Your task to perform on an android device: change the clock style Image 0: 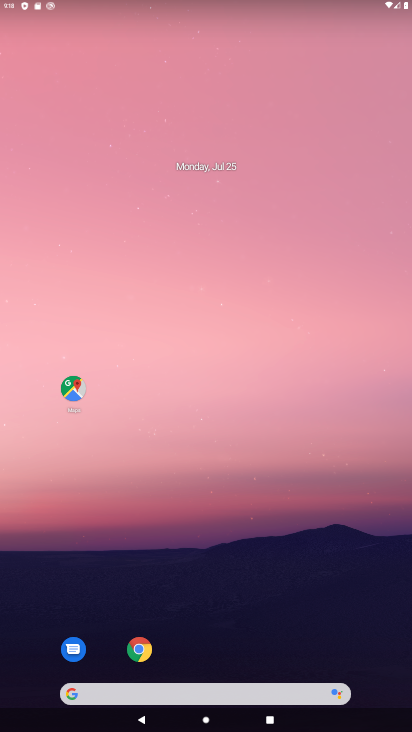
Step 0: drag from (259, 533) to (141, 58)
Your task to perform on an android device: change the clock style Image 1: 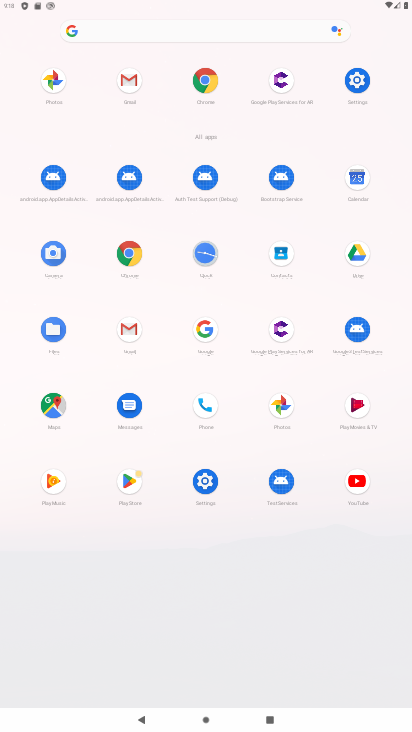
Step 1: click (200, 92)
Your task to perform on an android device: change the clock style Image 2: 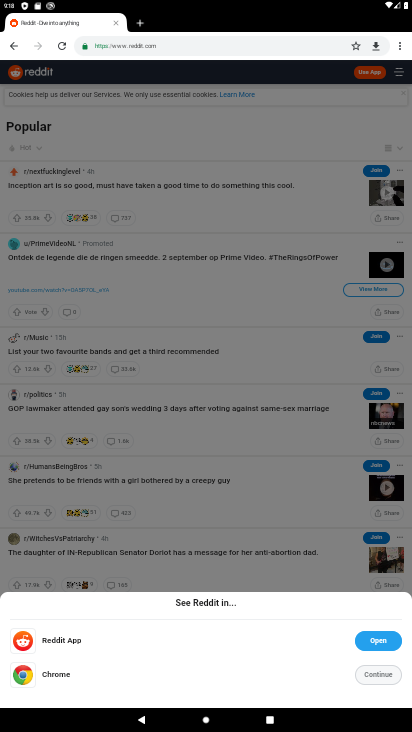
Step 2: press home button
Your task to perform on an android device: change the clock style Image 3: 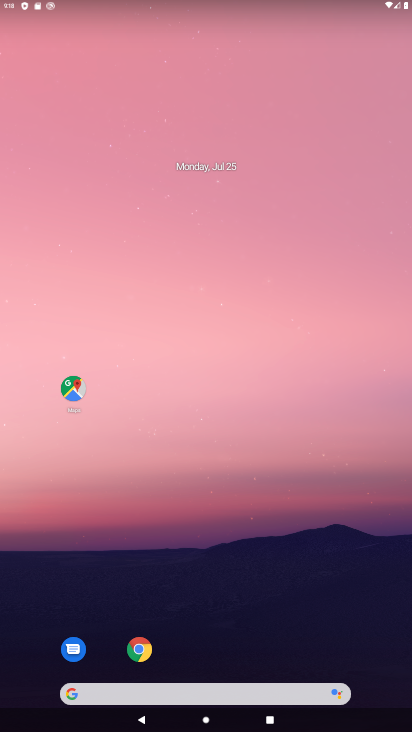
Step 3: drag from (226, 482) to (171, 42)
Your task to perform on an android device: change the clock style Image 4: 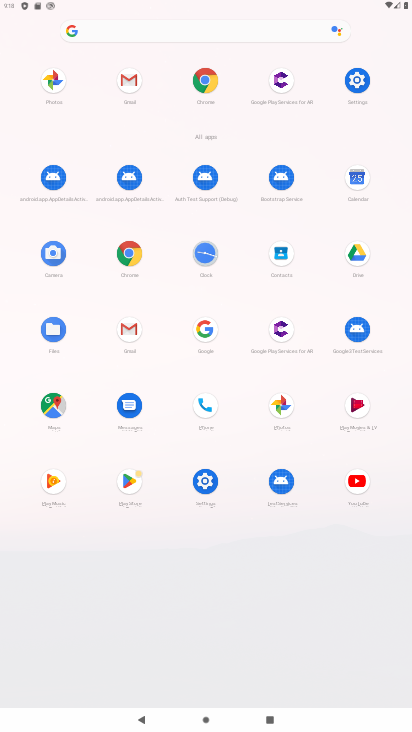
Step 4: click (203, 263)
Your task to perform on an android device: change the clock style Image 5: 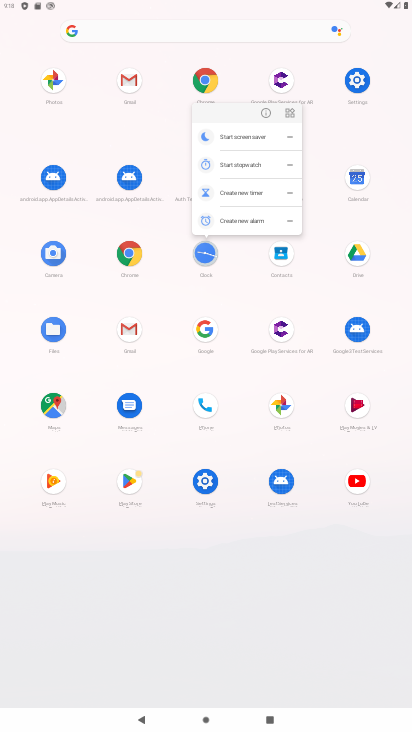
Step 5: click (203, 263)
Your task to perform on an android device: change the clock style Image 6: 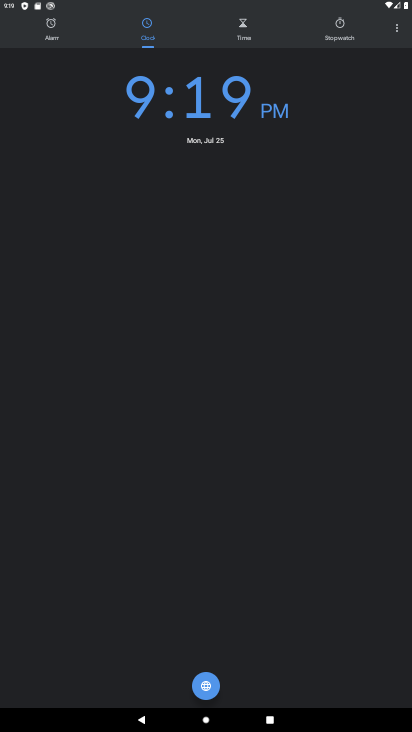
Step 6: click (399, 21)
Your task to perform on an android device: change the clock style Image 7: 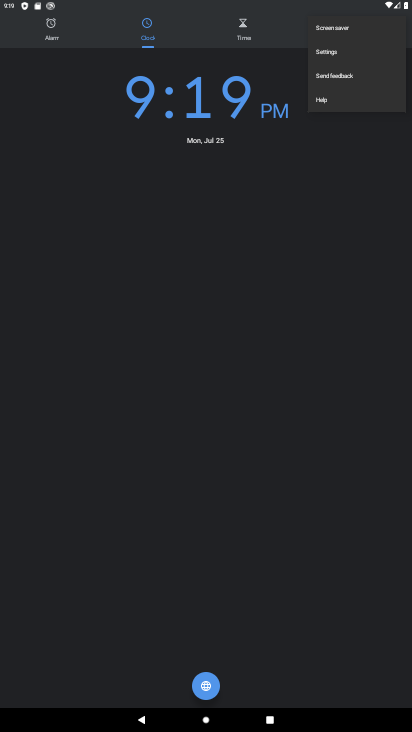
Step 7: click (325, 49)
Your task to perform on an android device: change the clock style Image 8: 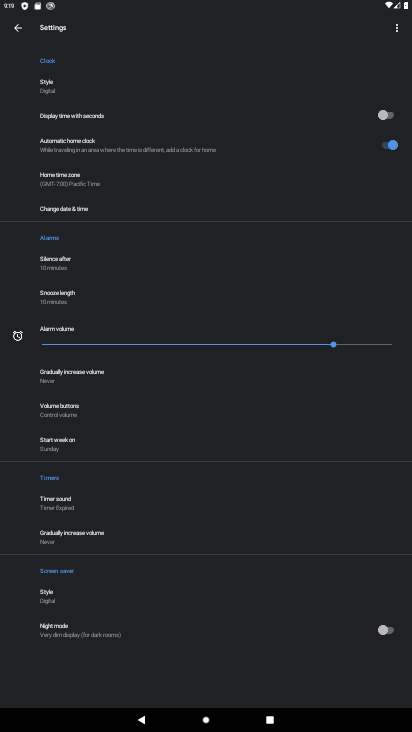
Step 8: click (55, 83)
Your task to perform on an android device: change the clock style Image 9: 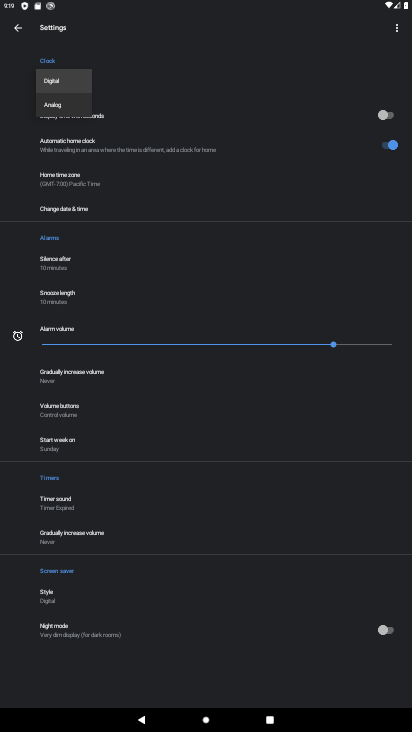
Step 9: click (66, 107)
Your task to perform on an android device: change the clock style Image 10: 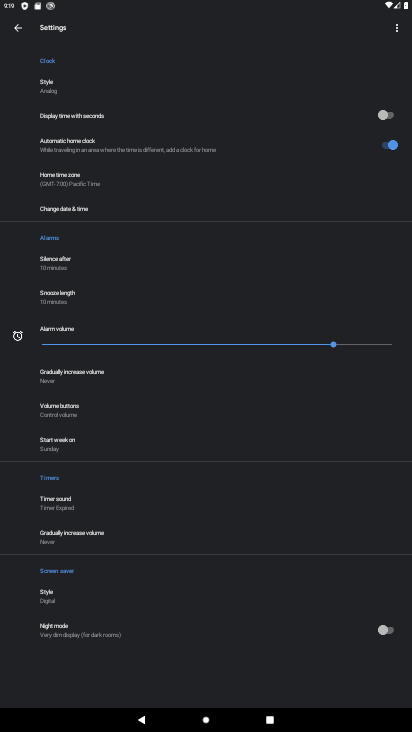
Step 10: task complete